Your task to perform on an android device: toggle notification dots Image 0: 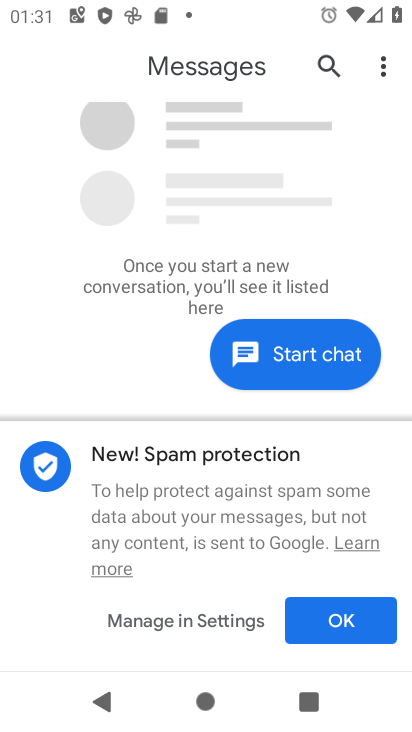
Step 0: press home button
Your task to perform on an android device: toggle notification dots Image 1: 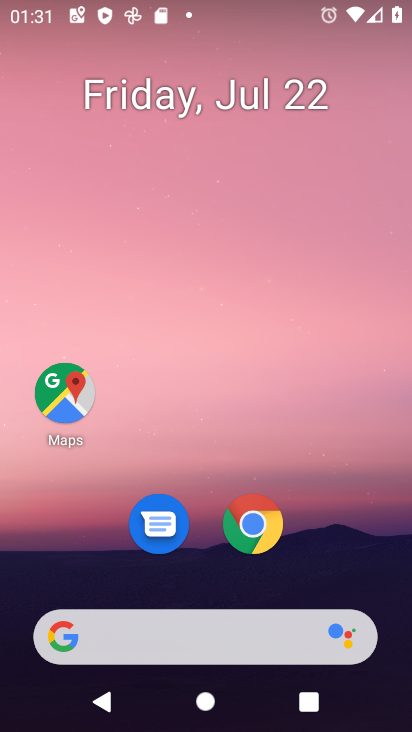
Step 1: drag from (222, 642) to (338, 38)
Your task to perform on an android device: toggle notification dots Image 2: 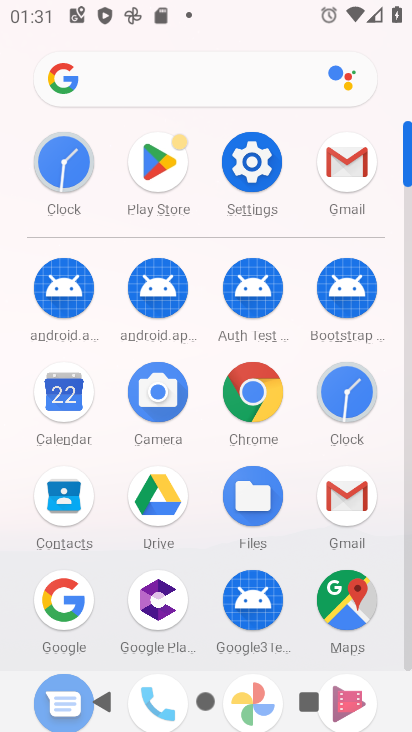
Step 2: click (257, 153)
Your task to perform on an android device: toggle notification dots Image 3: 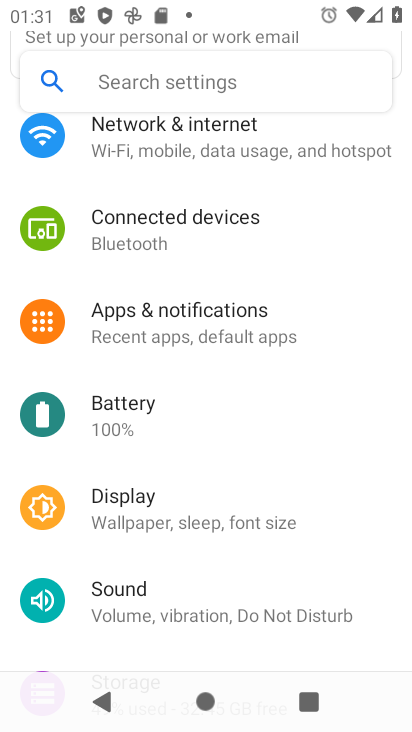
Step 3: click (213, 328)
Your task to perform on an android device: toggle notification dots Image 4: 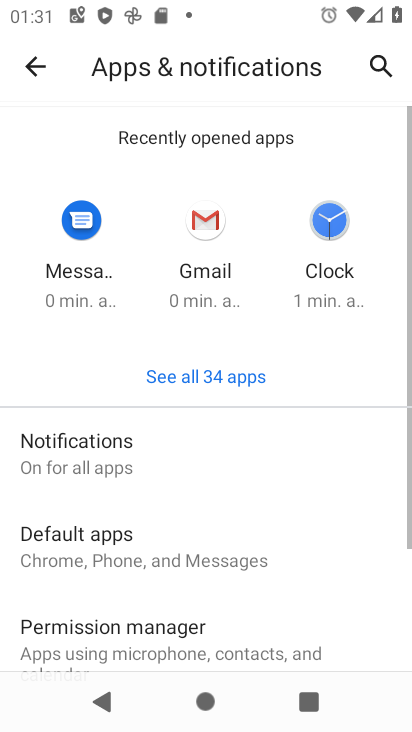
Step 4: click (108, 458)
Your task to perform on an android device: toggle notification dots Image 5: 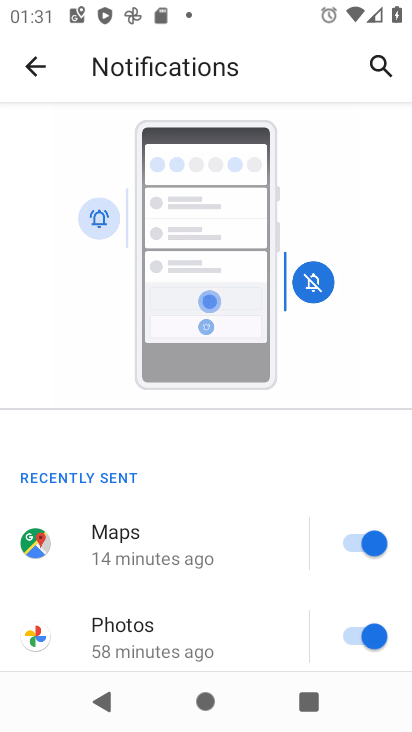
Step 5: drag from (196, 624) to (318, 234)
Your task to perform on an android device: toggle notification dots Image 6: 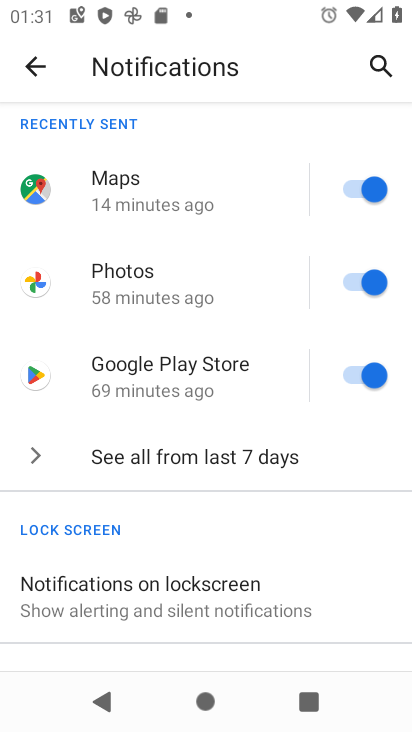
Step 6: drag from (228, 568) to (317, 159)
Your task to perform on an android device: toggle notification dots Image 7: 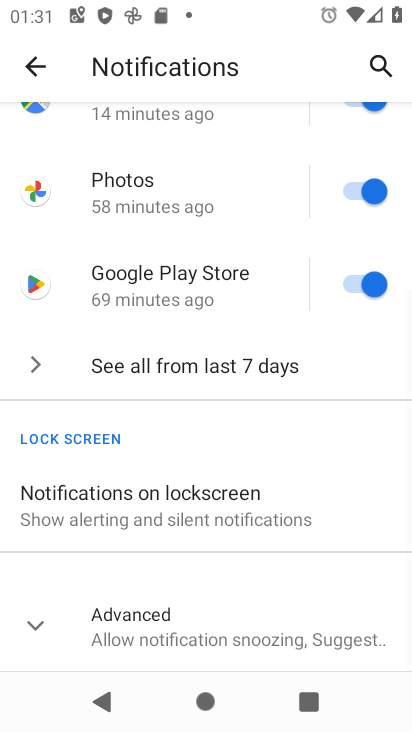
Step 7: click (190, 620)
Your task to perform on an android device: toggle notification dots Image 8: 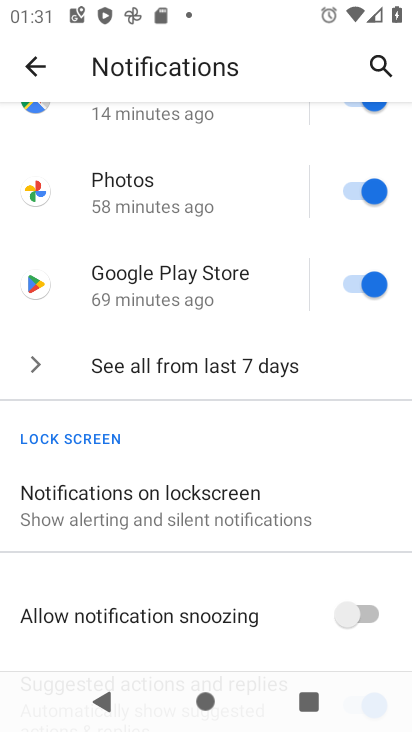
Step 8: drag from (265, 530) to (345, 247)
Your task to perform on an android device: toggle notification dots Image 9: 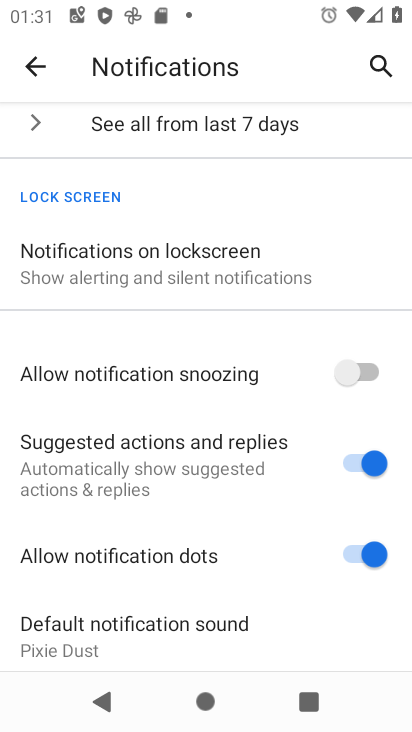
Step 9: click (360, 566)
Your task to perform on an android device: toggle notification dots Image 10: 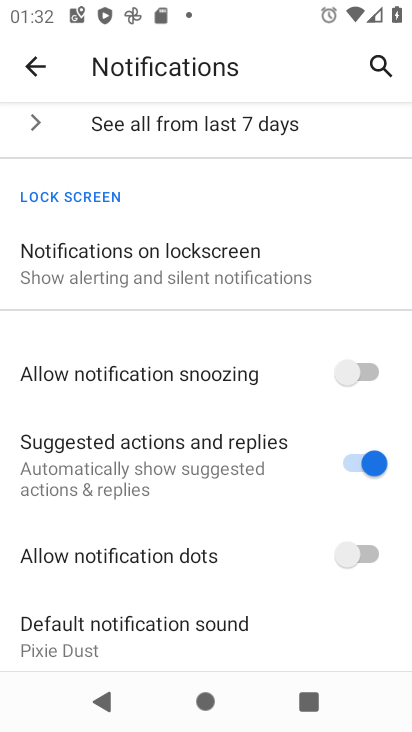
Step 10: task complete